Your task to perform on an android device: change notification settings in the gmail app Image 0: 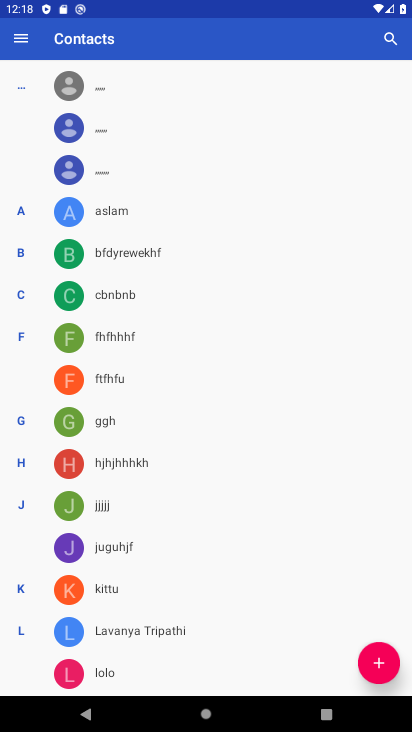
Step 0: press home button
Your task to perform on an android device: change notification settings in the gmail app Image 1: 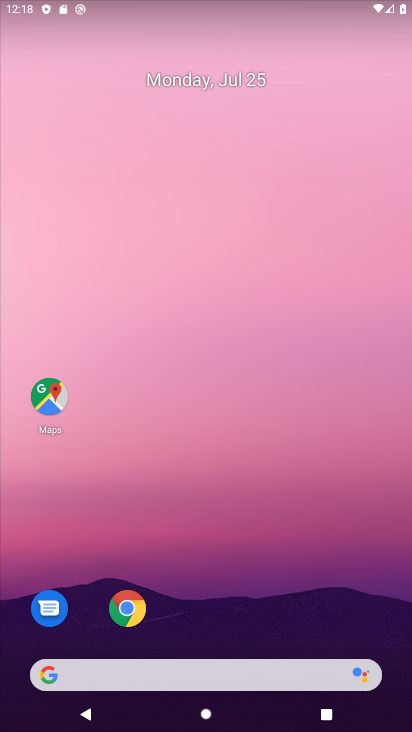
Step 1: drag from (210, 609) to (214, 205)
Your task to perform on an android device: change notification settings in the gmail app Image 2: 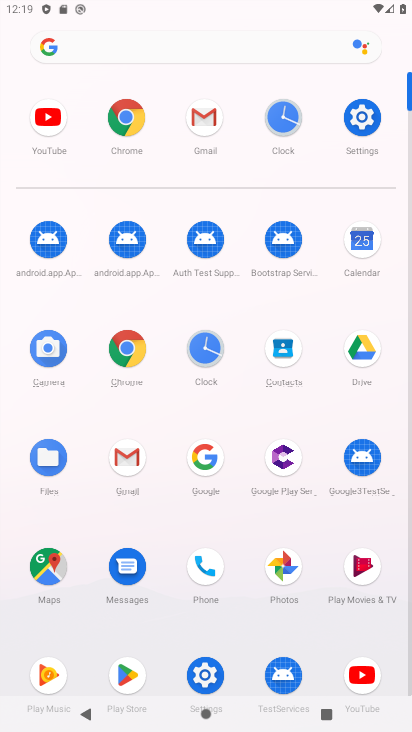
Step 2: click (136, 470)
Your task to perform on an android device: change notification settings in the gmail app Image 3: 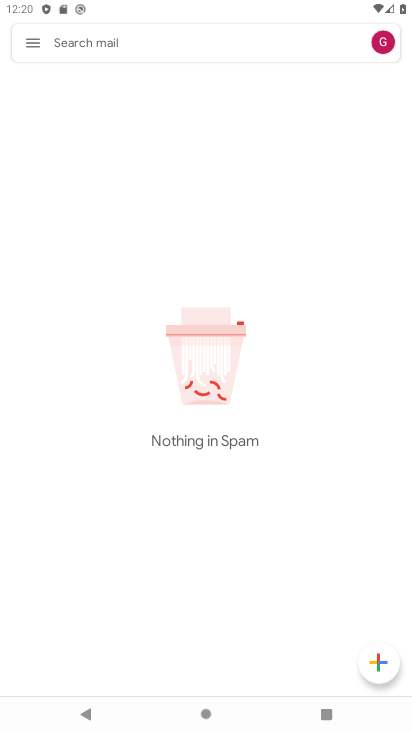
Step 3: click (33, 49)
Your task to perform on an android device: change notification settings in the gmail app Image 4: 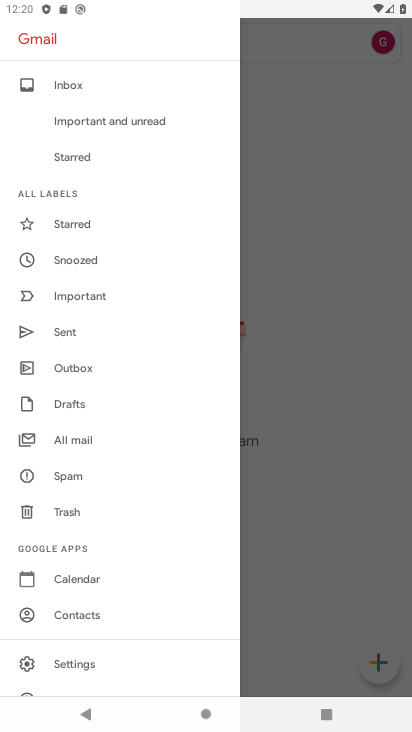
Step 4: click (99, 662)
Your task to perform on an android device: change notification settings in the gmail app Image 5: 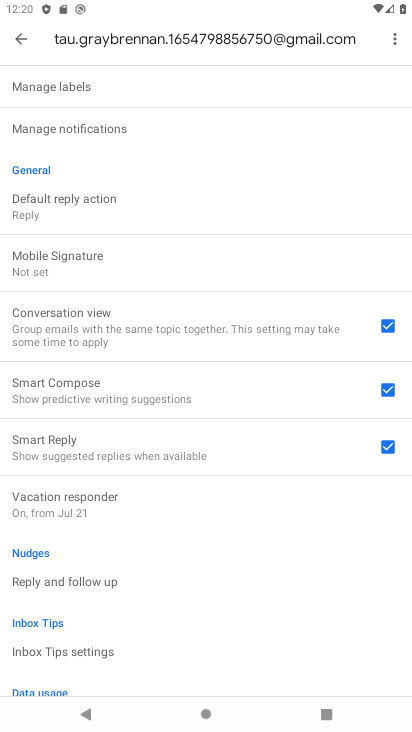
Step 5: drag from (179, 587) to (220, 243)
Your task to perform on an android device: change notification settings in the gmail app Image 6: 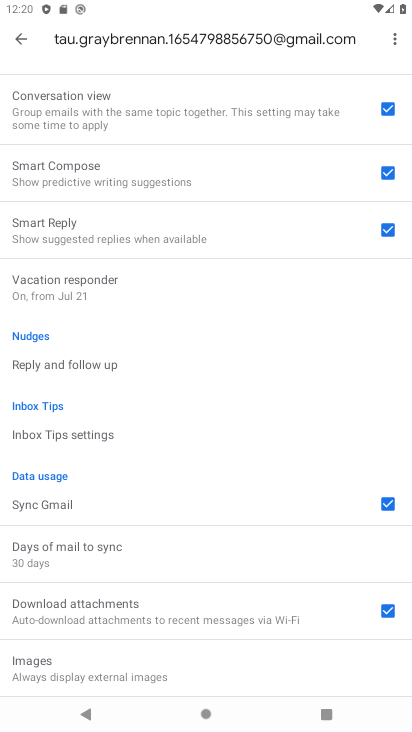
Step 6: drag from (131, 301) to (158, 593)
Your task to perform on an android device: change notification settings in the gmail app Image 7: 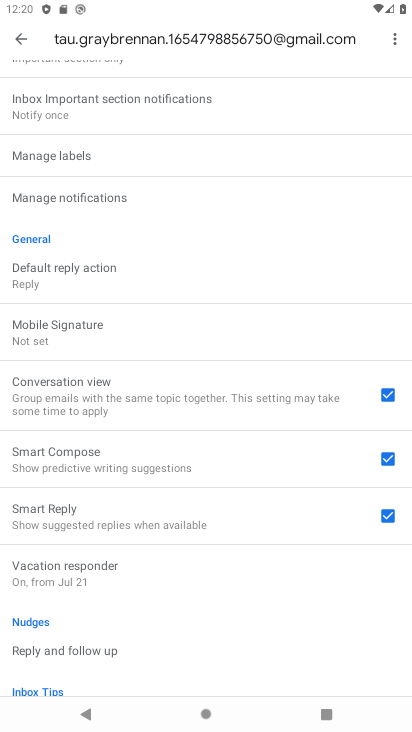
Step 7: click (114, 203)
Your task to perform on an android device: change notification settings in the gmail app Image 8: 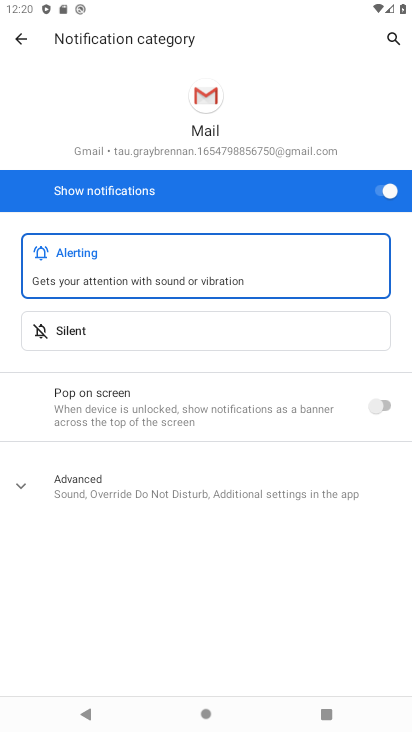
Step 8: click (393, 198)
Your task to perform on an android device: change notification settings in the gmail app Image 9: 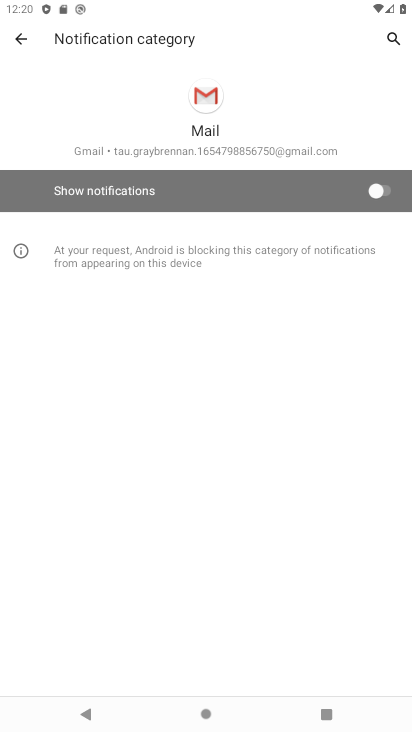
Step 9: task complete